Your task to perform on an android device: change notification settings in the gmail app Image 0: 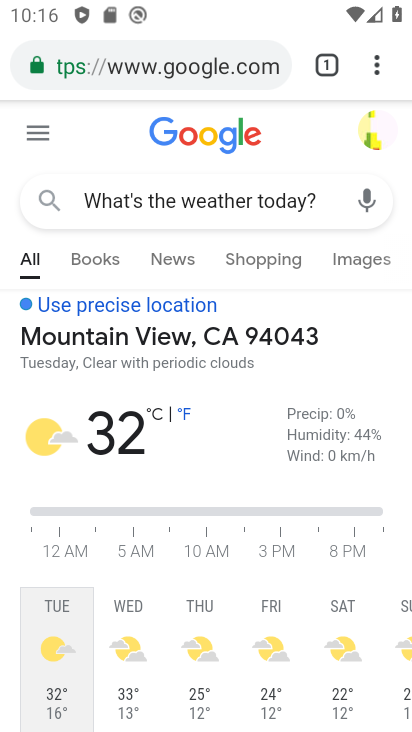
Step 0: press home button
Your task to perform on an android device: change notification settings in the gmail app Image 1: 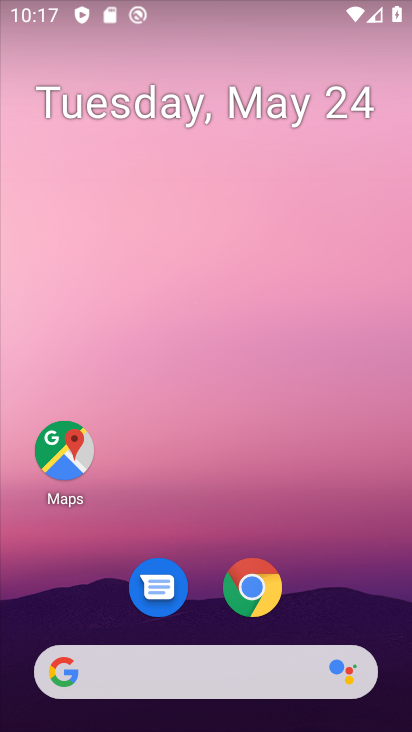
Step 1: drag from (332, 586) to (372, 45)
Your task to perform on an android device: change notification settings in the gmail app Image 2: 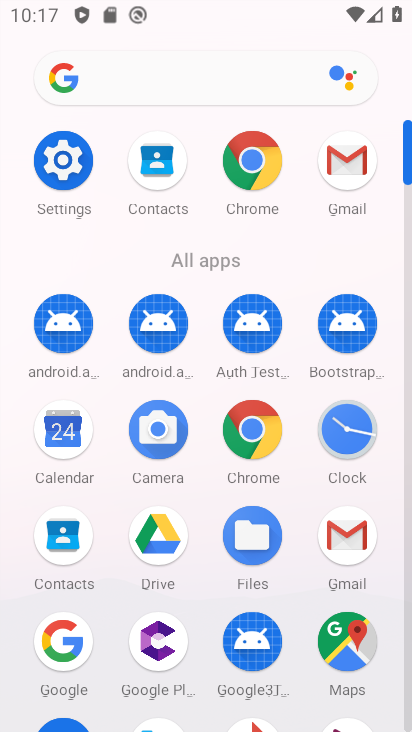
Step 2: click (352, 531)
Your task to perform on an android device: change notification settings in the gmail app Image 3: 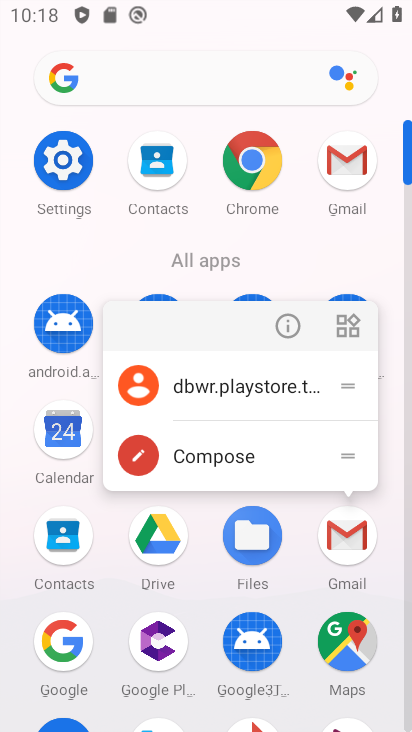
Step 3: click (289, 331)
Your task to perform on an android device: change notification settings in the gmail app Image 4: 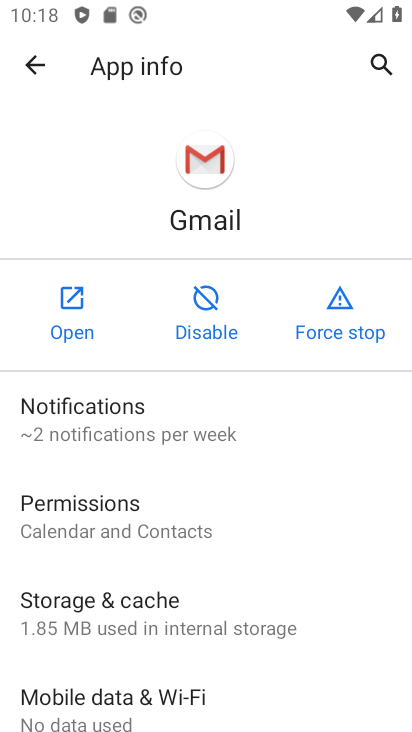
Step 4: click (168, 437)
Your task to perform on an android device: change notification settings in the gmail app Image 5: 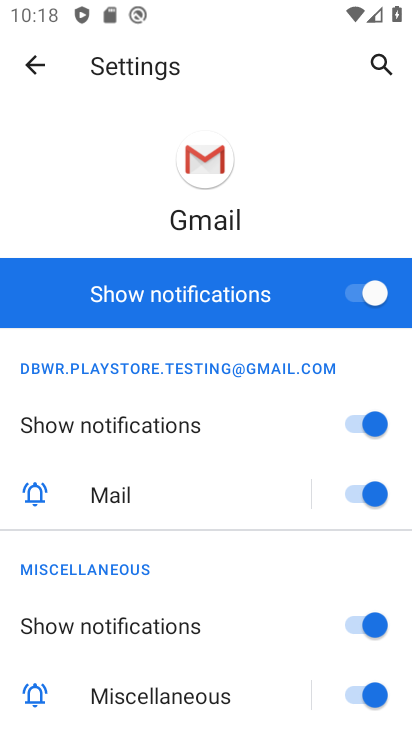
Step 5: click (325, 286)
Your task to perform on an android device: change notification settings in the gmail app Image 6: 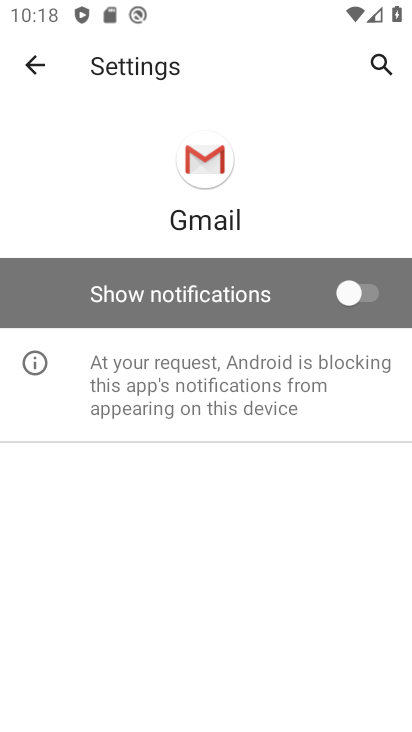
Step 6: task complete